Your task to perform on an android device: Go to ESPN.com Image 0: 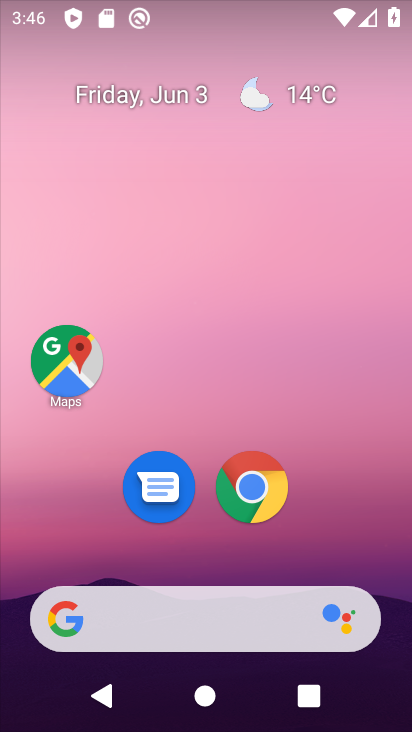
Step 0: click (247, 494)
Your task to perform on an android device: Go to ESPN.com Image 1: 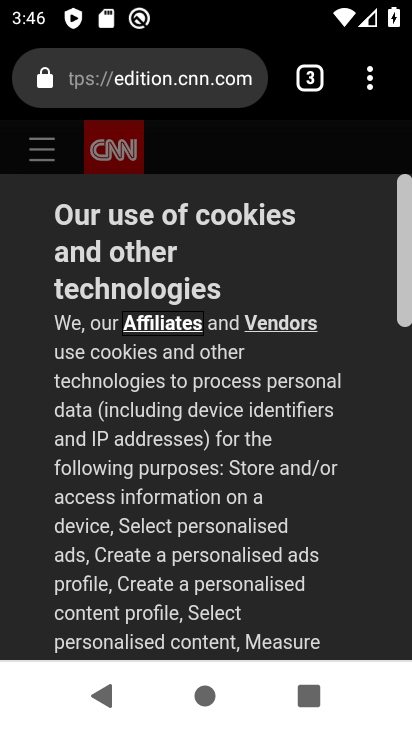
Step 1: click (308, 74)
Your task to perform on an android device: Go to ESPN.com Image 2: 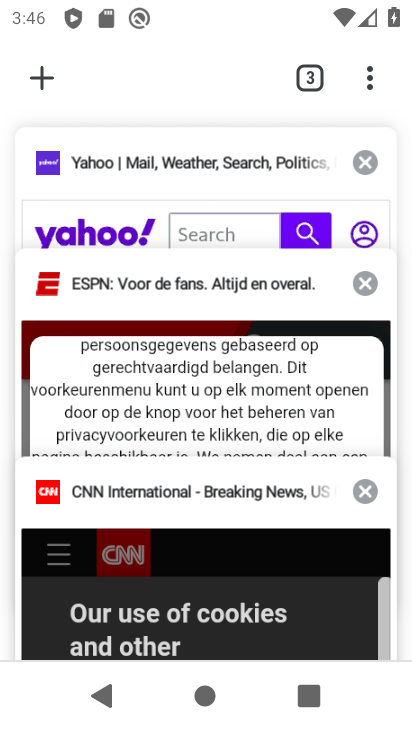
Step 2: click (68, 301)
Your task to perform on an android device: Go to ESPN.com Image 3: 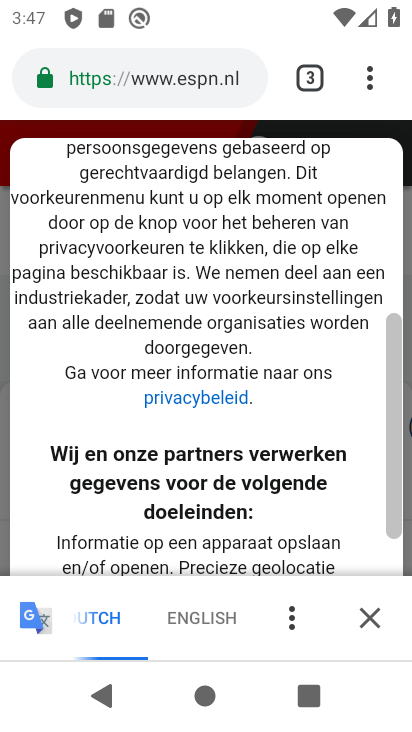
Step 3: task complete